Your task to perform on an android device: Go to battery settings Image 0: 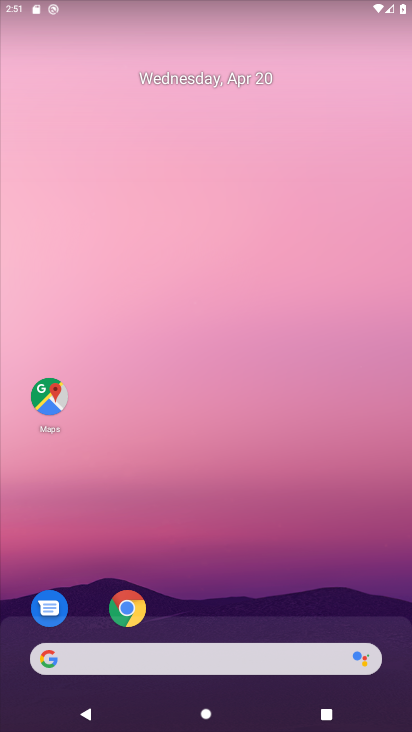
Step 0: drag from (204, 619) to (157, 11)
Your task to perform on an android device: Go to battery settings Image 1: 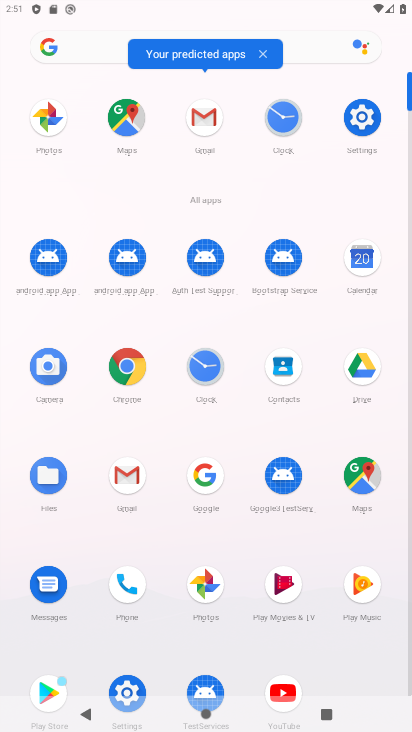
Step 1: click (358, 151)
Your task to perform on an android device: Go to battery settings Image 2: 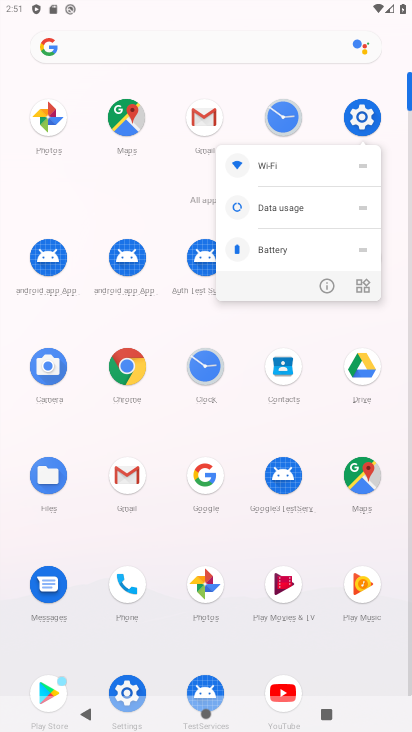
Step 2: click (351, 105)
Your task to perform on an android device: Go to battery settings Image 3: 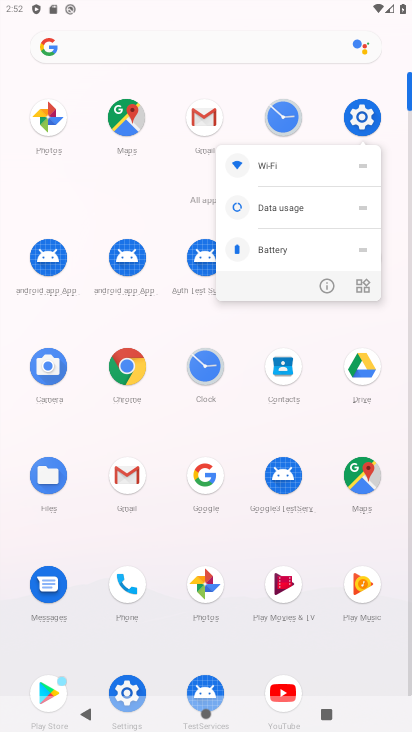
Step 3: click (355, 103)
Your task to perform on an android device: Go to battery settings Image 4: 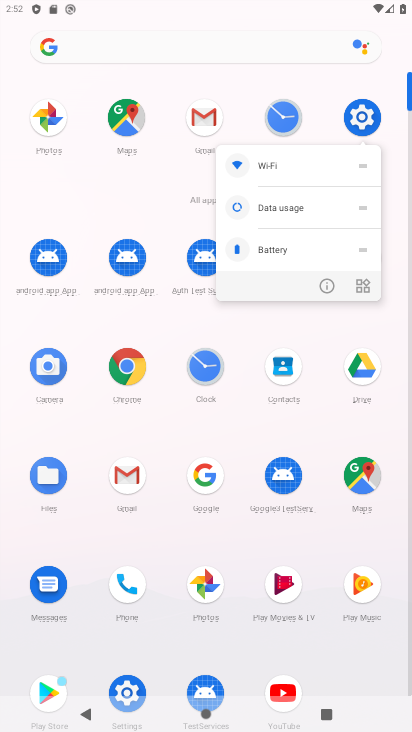
Step 4: click (357, 104)
Your task to perform on an android device: Go to battery settings Image 5: 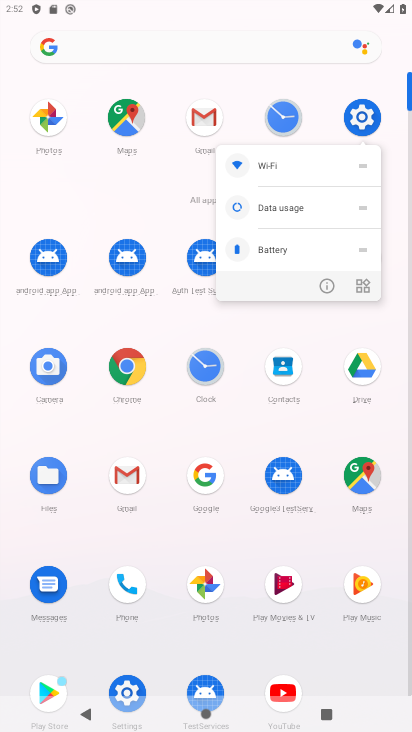
Step 5: click (352, 123)
Your task to perform on an android device: Go to battery settings Image 6: 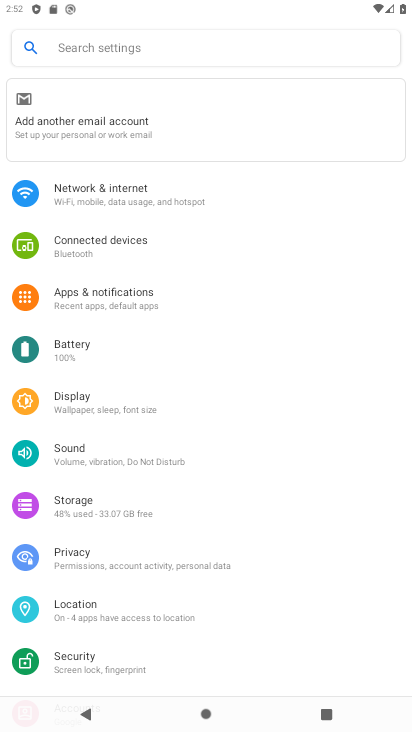
Step 6: click (52, 353)
Your task to perform on an android device: Go to battery settings Image 7: 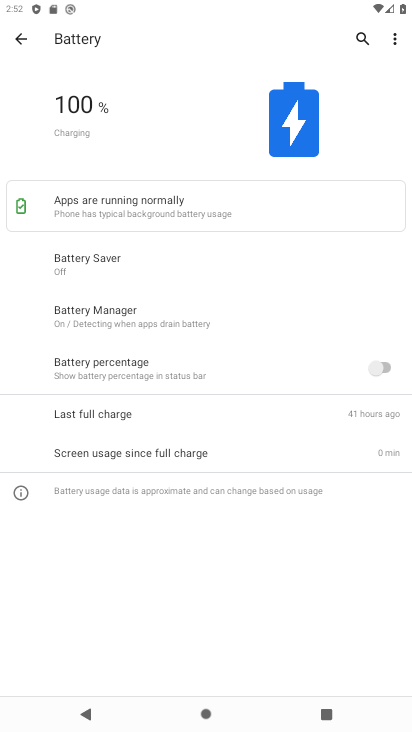
Step 7: task complete